Your task to perform on an android device: What is the news today? Image 0: 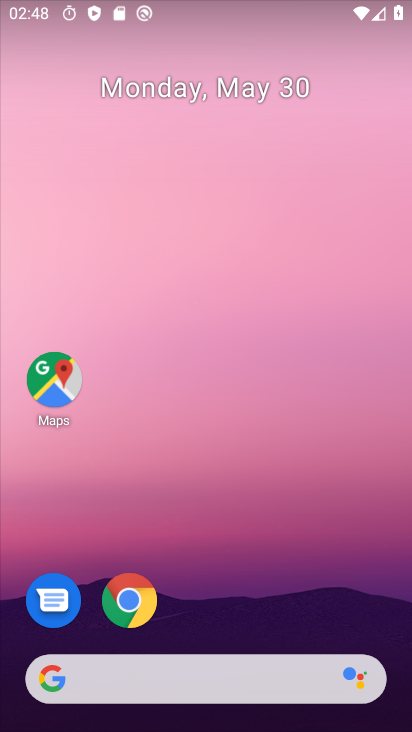
Step 0: click (177, 678)
Your task to perform on an android device: What is the news today? Image 1: 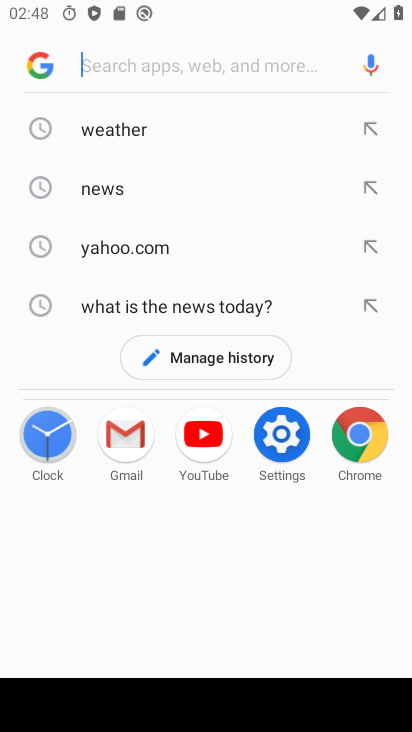
Step 1: click (214, 311)
Your task to perform on an android device: What is the news today? Image 2: 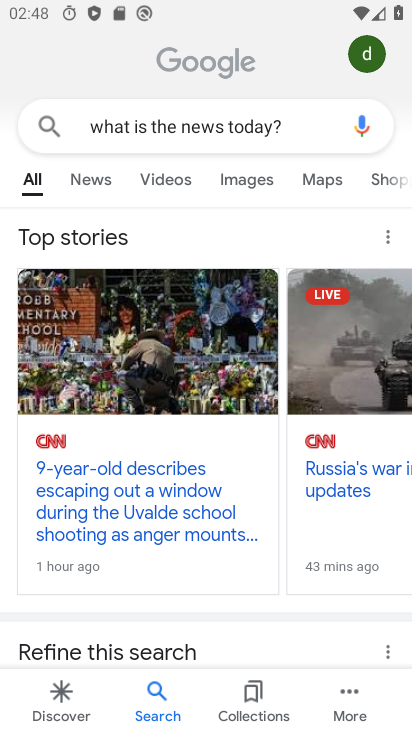
Step 2: click (93, 175)
Your task to perform on an android device: What is the news today? Image 3: 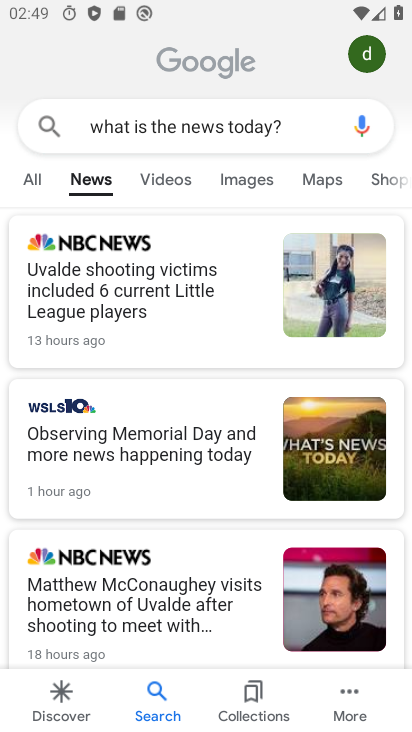
Step 3: task complete